Your task to perform on an android device: Open the stopwatch Image 0: 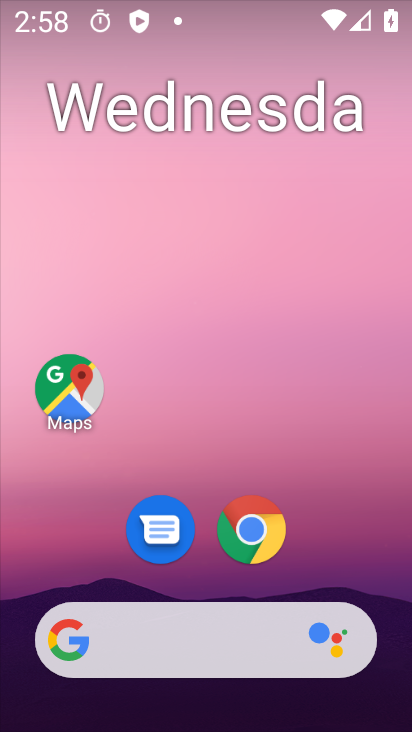
Step 0: drag from (310, 557) to (333, 127)
Your task to perform on an android device: Open the stopwatch Image 1: 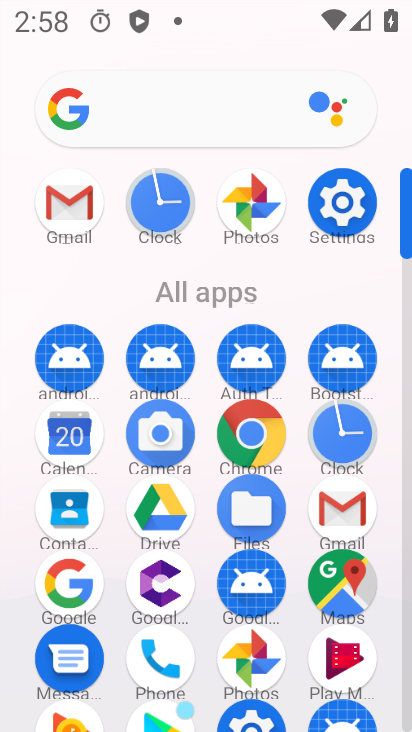
Step 1: click (136, 189)
Your task to perform on an android device: Open the stopwatch Image 2: 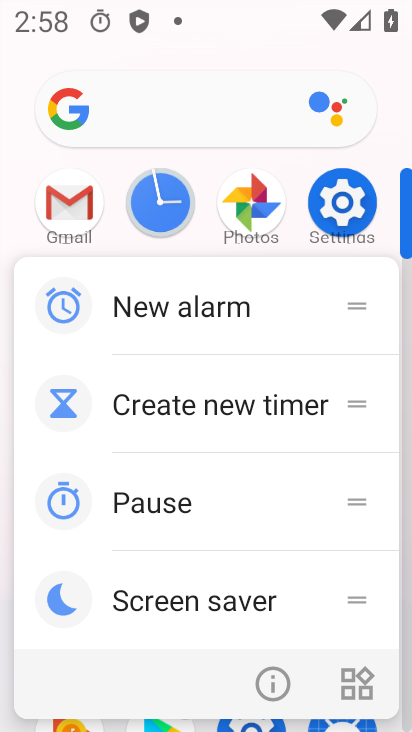
Step 2: click (132, 209)
Your task to perform on an android device: Open the stopwatch Image 3: 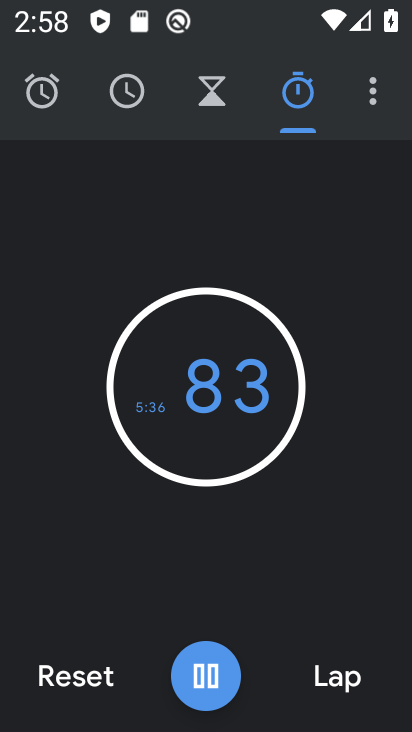
Step 3: task complete